Your task to perform on an android device: create a new album in the google photos Image 0: 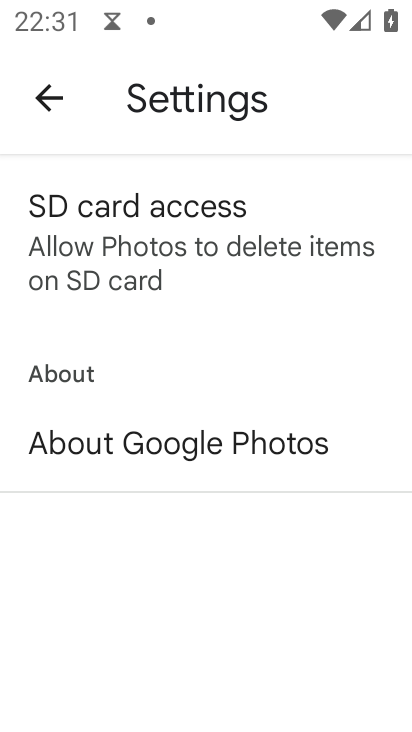
Step 0: press home button
Your task to perform on an android device: create a new album in the google photos Image 1: 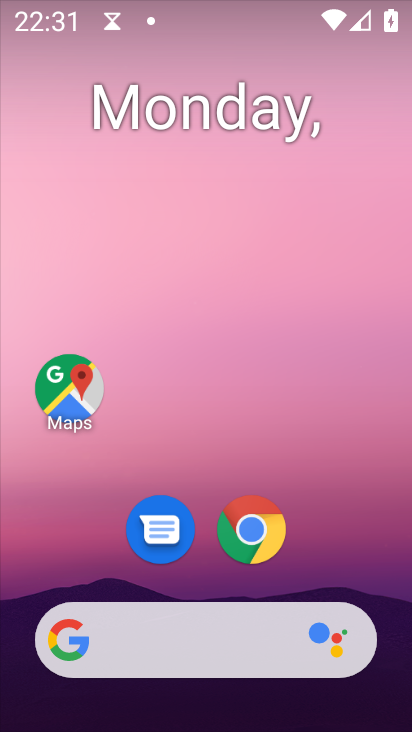
Step 1: drag from (343, 529) to (321, 111)
Your task to perform on an android device: create a new album in the google photos Image 2: 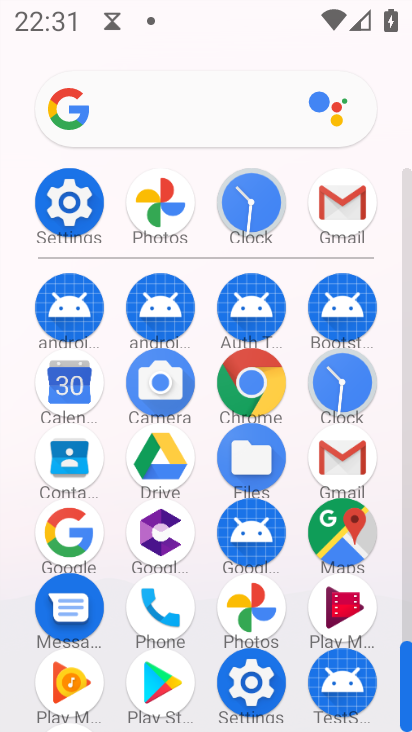
Step 2: click (162, 205)
Your task to perform on an android device: create a new album in the google photos Image 3: 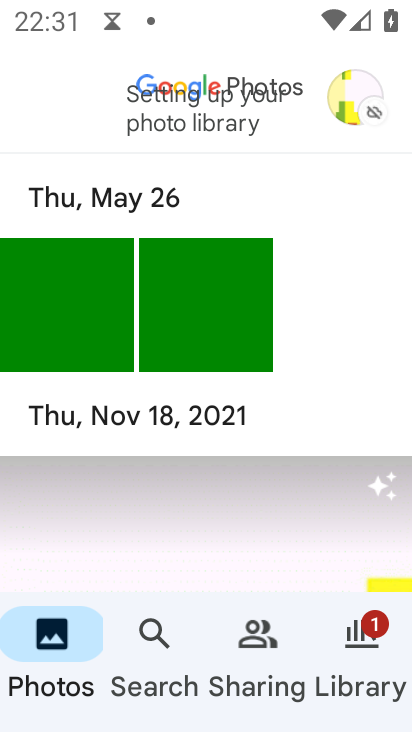
Step 3: click (368, 640)
Your task to perform on an android device: create a new album in the google photos Image 4: 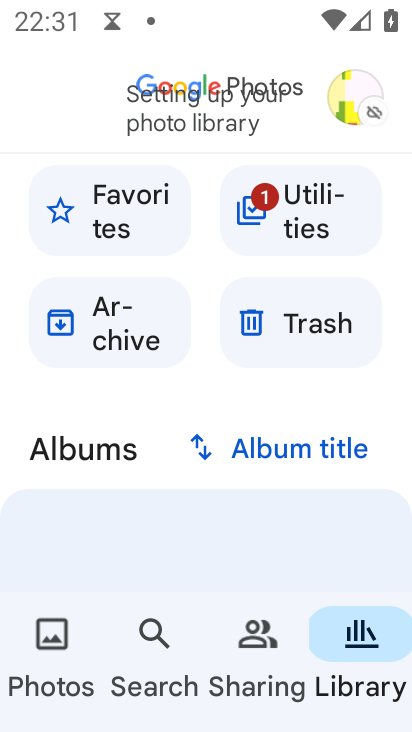
Step 4: drag from (192, 561) to (285, 378)
Your task to perform on an android device: create a new album in the google photos Image 5: 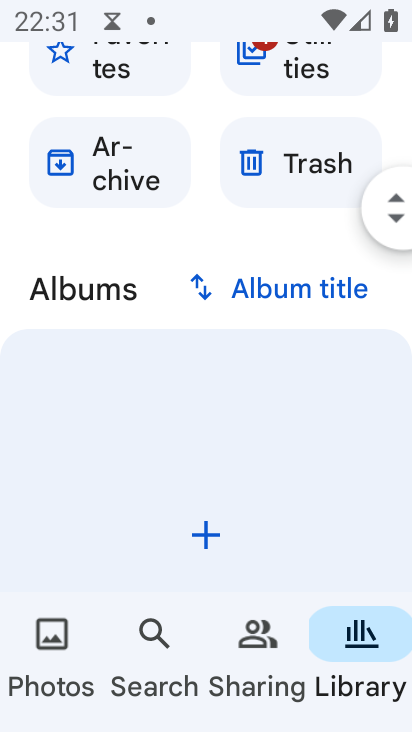
Step 5: click (204, 533)
Your task to perform on an android device: create a new album in the google photos Image 6: 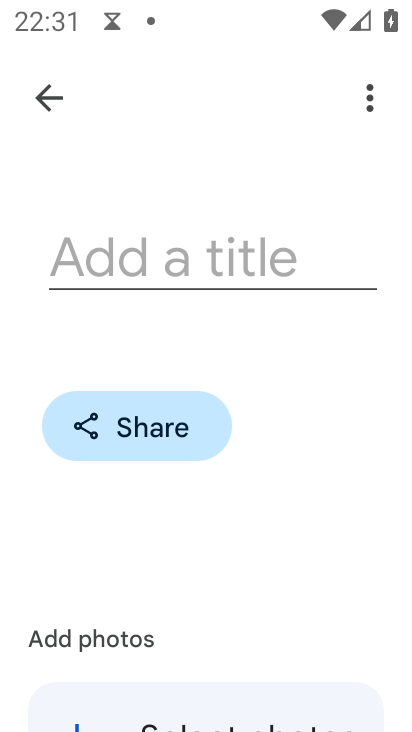
Step 6: click (228, 252)
Your task to perform on an android device: create a new album in the google photos Image 7: 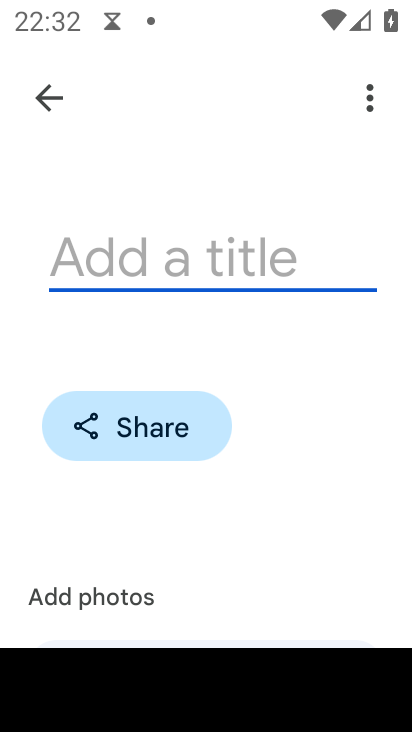
Step 7: type "Fianace"
Your task to perform on an android device: create a new album in the google photos Image 8: 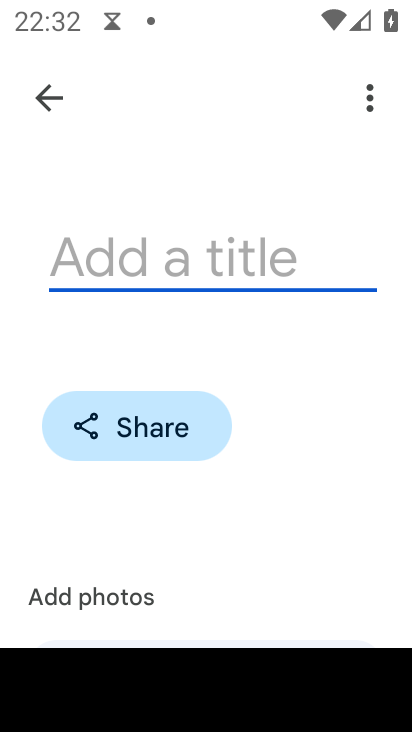
Step 8: drag from (257, 429) to (284, 368)
Your task to perform on an android device: create a new album in the google photos Image 9: 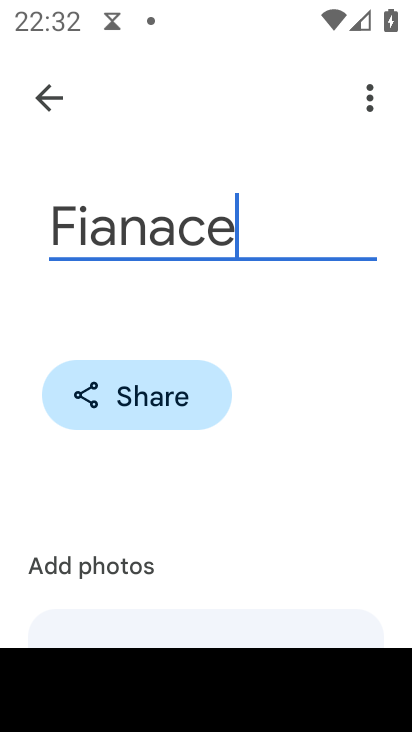
Step 9: drag from (234, 497) to (342, 237)
Your task to perform on an android device: create a new album in the google photos Image 10: 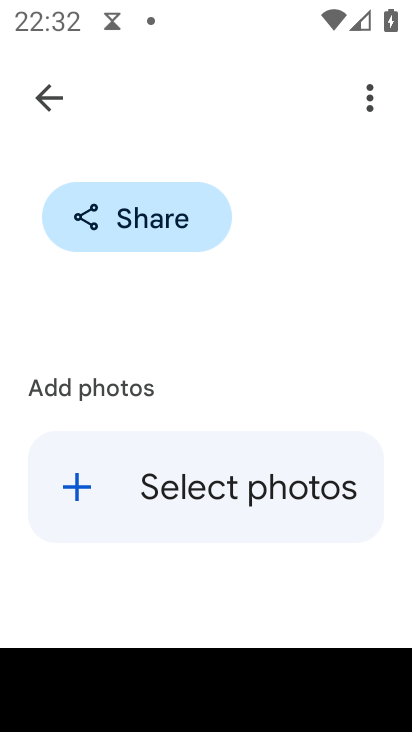
Step 10: click (236, 482)
Your task to perform on an android device: create a new album in the google photos Image 11: 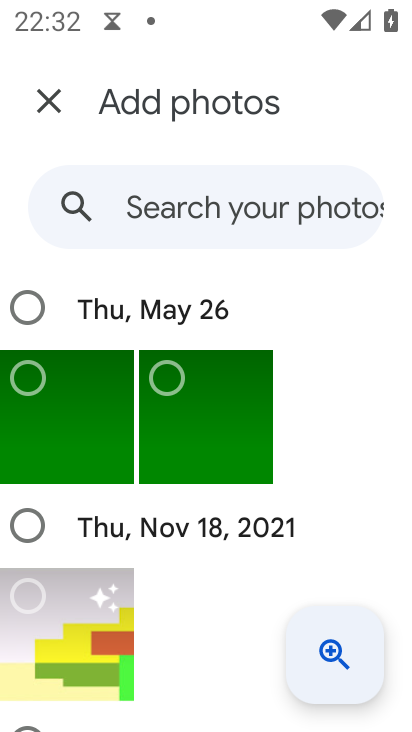
Step 11: click (33, 304)
Your task to perform on an android device: create a new album in the google photos Image 12: 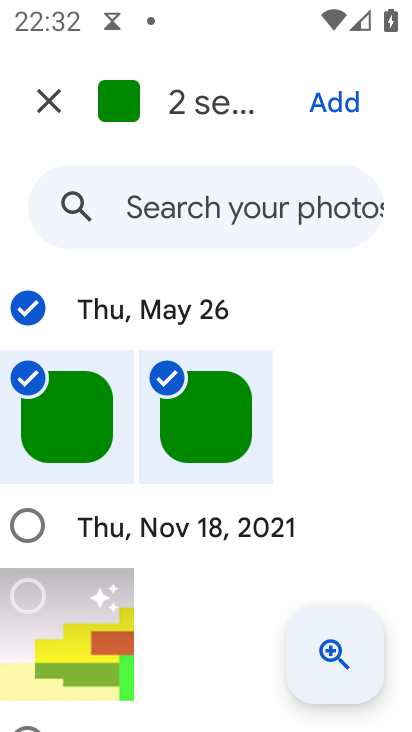
Step 12: click (352, 100)
Your task to perform on an android device: create a new album in the google photos Image 13: 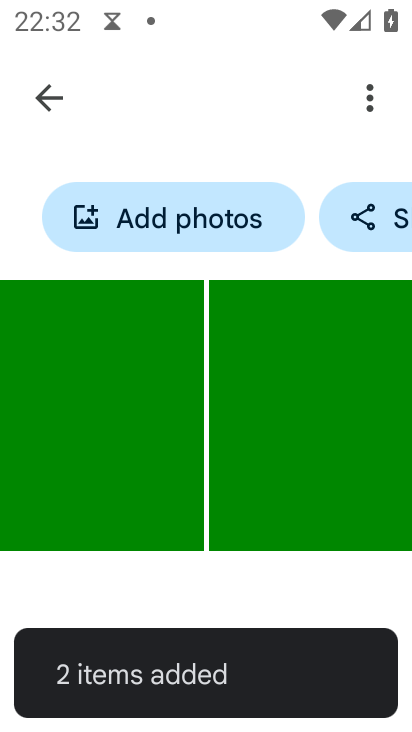
Step 13: task complete